Your task to perform on an android device: Go to Yahoo.com Image 0: 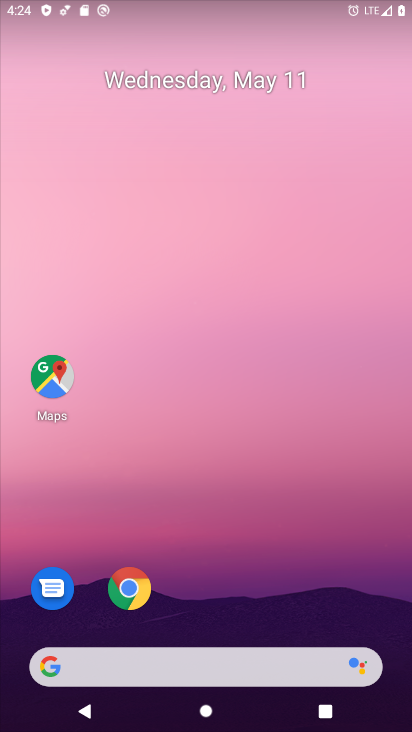
Step 0: drag from (289, 566) to (331, 64)
Your task to perform on an android device: Go to Yahoo.com Image 1: 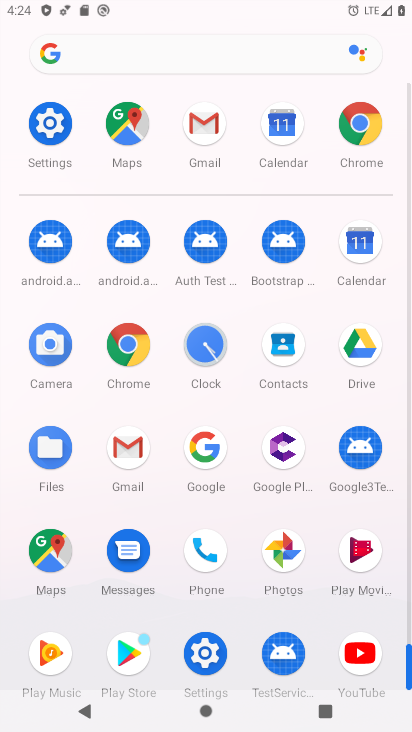
Step 1: click (367, 135)
Your task to perform on an android device: Go to Yahoo.com Image 2: 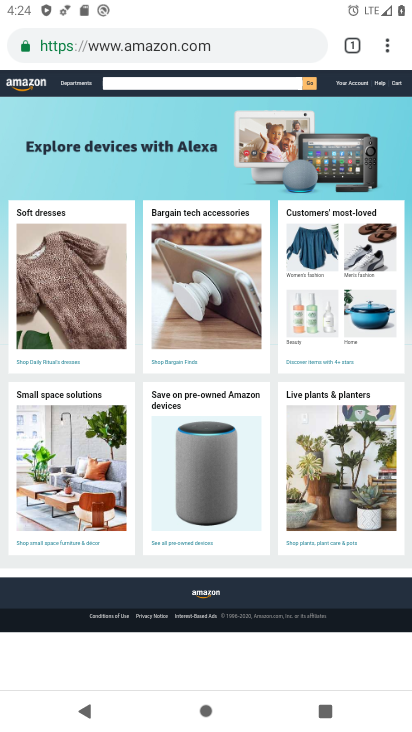
Step 2: click (195, 48)
Your task to perform on an android device: Go to Yahoo.com Image 3: 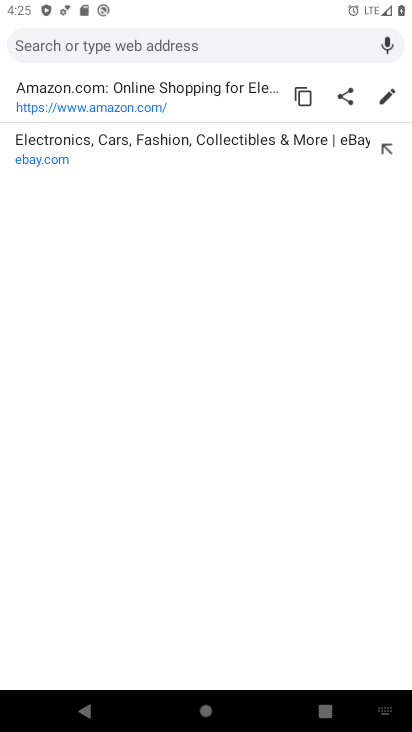
Step 3: type "yahoo"
Your task to perform on an android device: Go to Yahoo.com Image 4: 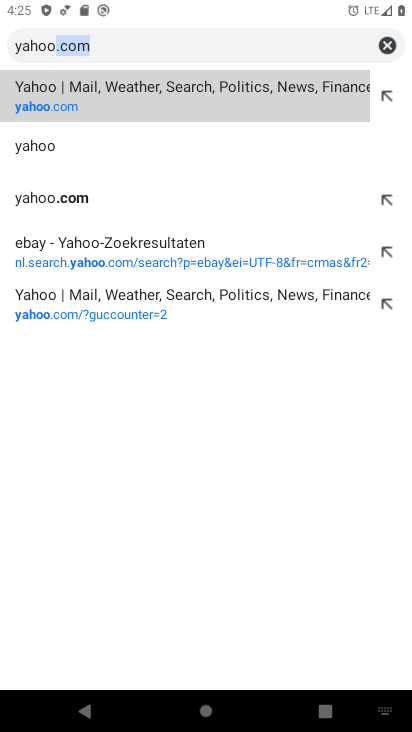
Step 4: click (8, 207)
Your task to perform on an android device: Go to Yahoo.com Image 5: 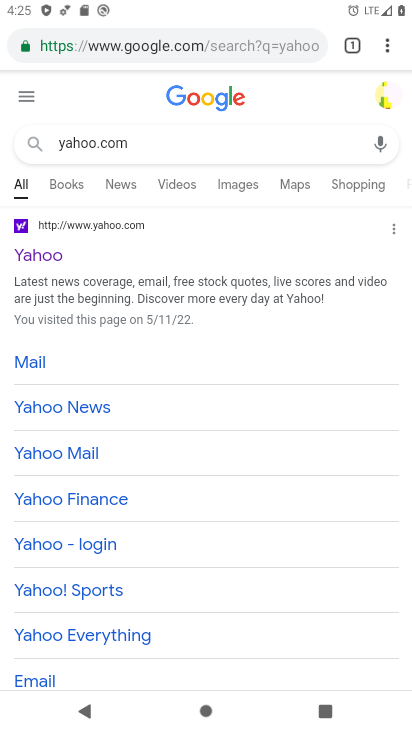
Step 5: click (25, 246)
Your task to perform on an android device: Go to Yahoo.com Image 6: 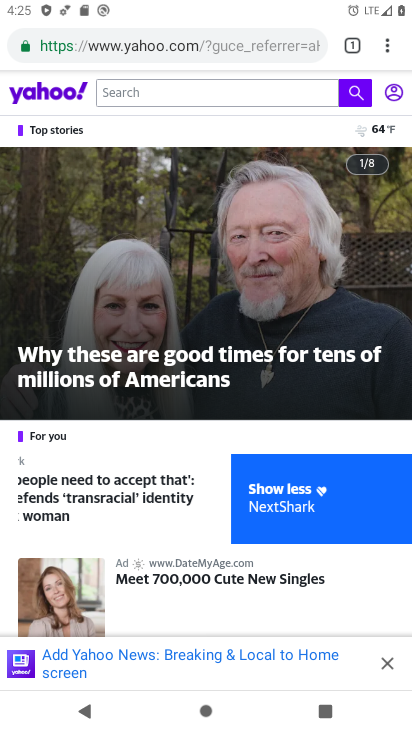
Step 6: task complete